Your task to perform on an android device: Go to ESPN.com Image 0: 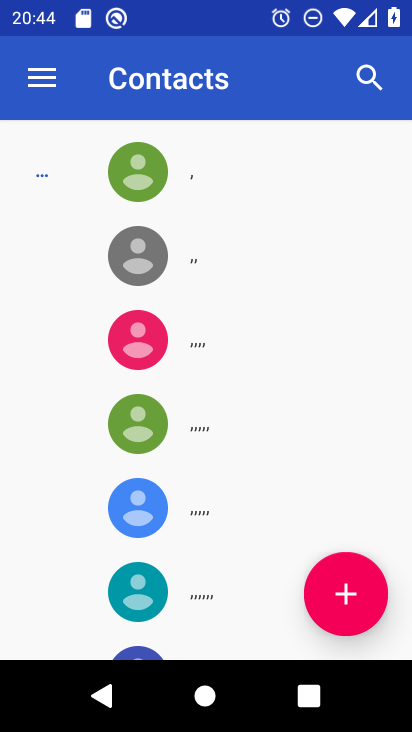
Step 0: press home button
Your task to perform on an android device: Go to ESPN.com Image 1: 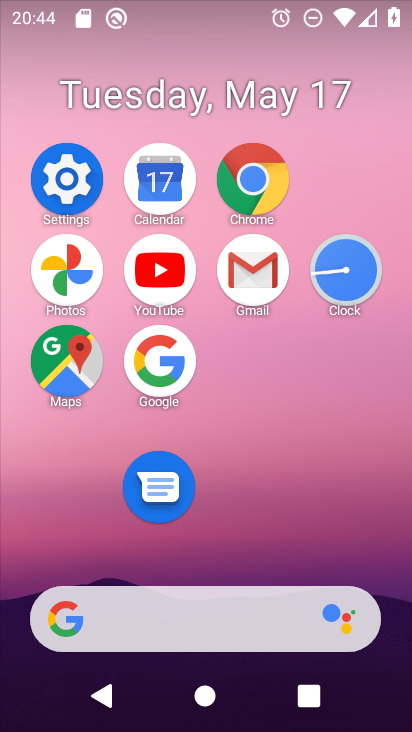
Step 1: click (237, 201)
Your task to perform on an android device: Go to ESPN.com Image 2: 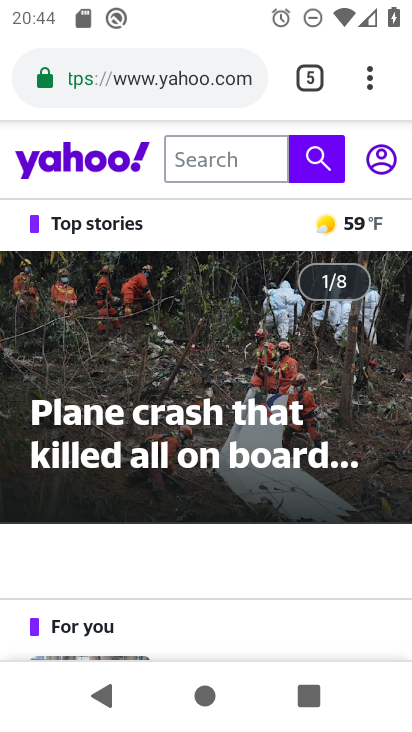
Step 2: click (300, 84)
Your task to perform on an android device: Go to ESPN.com Image 3: 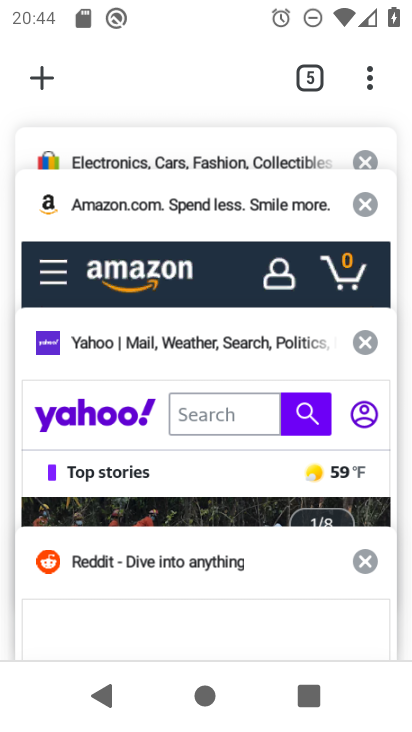
Step 3: drag from (177, 289) to (153, 545)
Your task to perform on an android device: Go to ESPN.com Image 4: 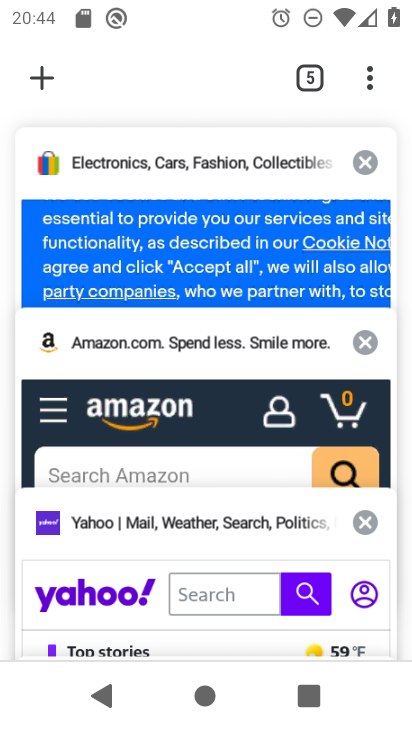
Step 4: drag from (183, 191) to (197, 503)
Your task to perform on an android device: Go to ESPN.com Image 5: 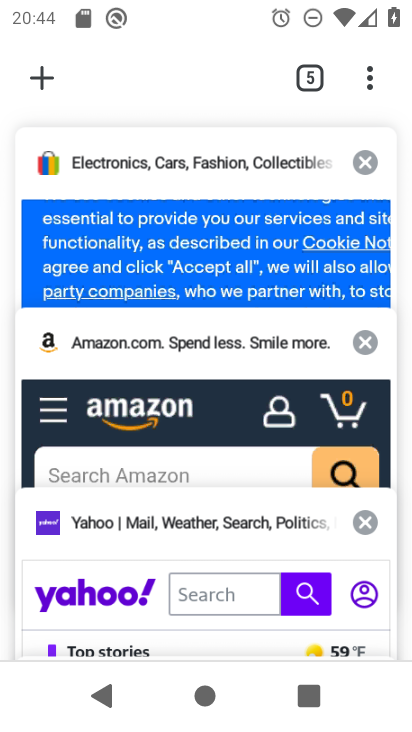
Step 5: click (48, 65)
Your task to perform on an android device: Go to ESPN.com Image 6: 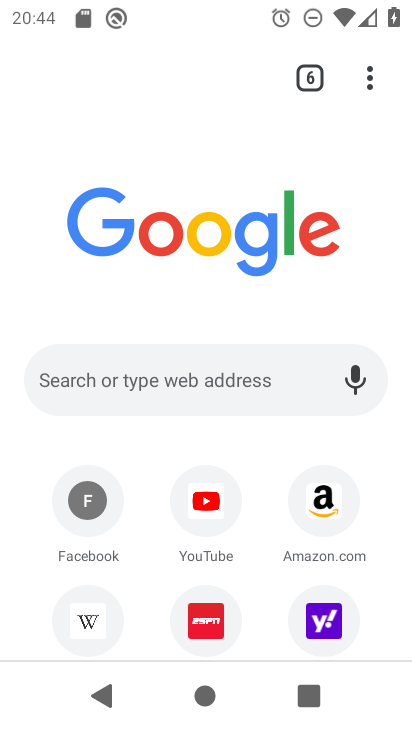
Step 6: click (189, 616)
Your task to perform on an android device: Go to ESPN.com Image 7: 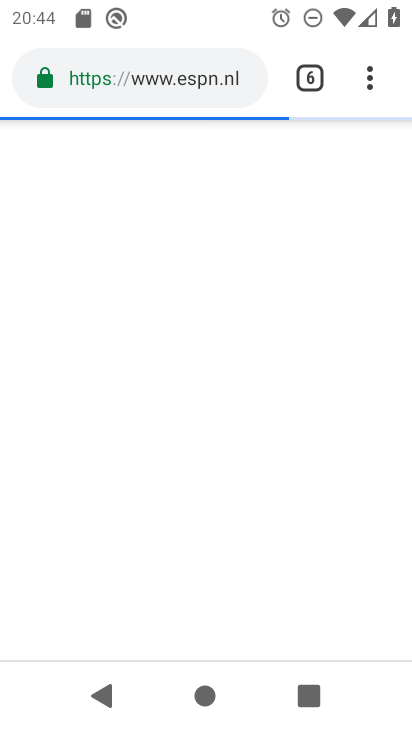
Step 7: task complete